Your task to perform on an android device: find which apps use the phone's location Image 0: 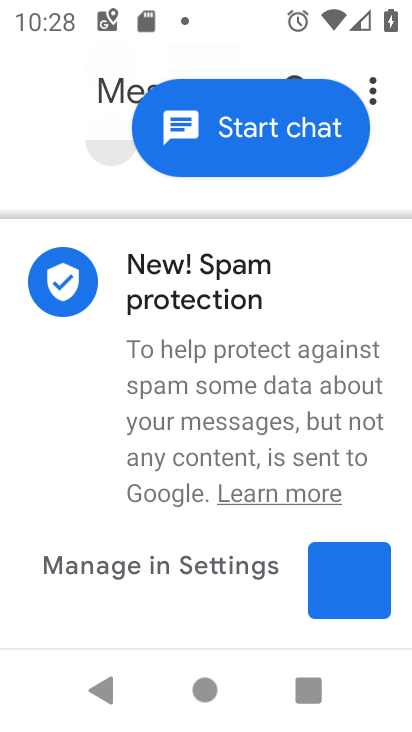
Step 0: press home button
Your task to perform on an android device: find which apps use the phone's location Image 1: 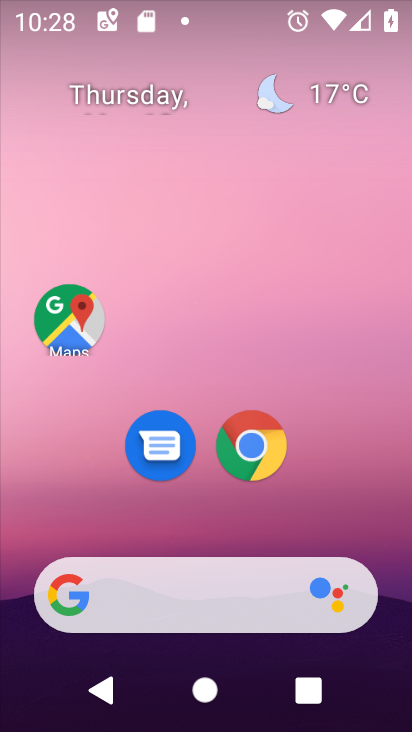
Step 1: drag from (232, 534) to (256, 107)
Your task to perform on an android device: find which apps use the phone's location Image 2: 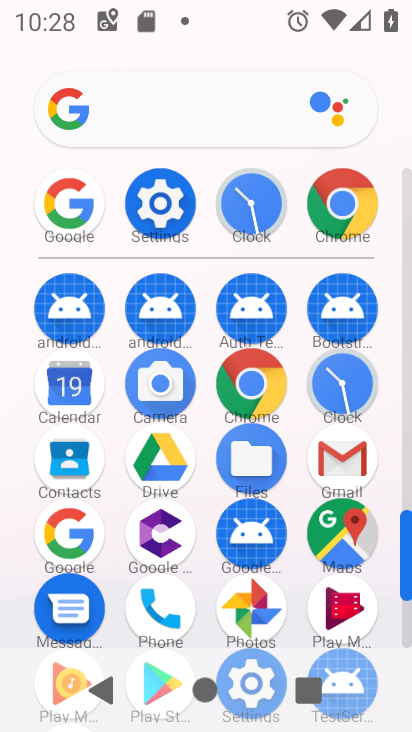
Step 2: click (164, 208)
Your task to perform on an android device: find which apps use the phone's location Image 3: 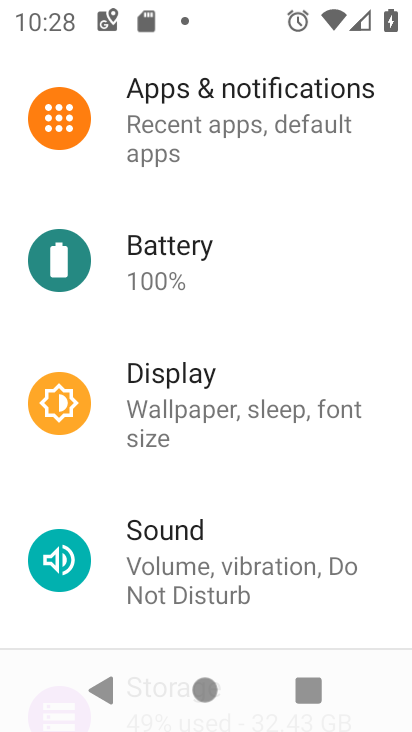
Step 3: drag from (232, 472) to (273, 206)
Your task to perform on an android device: find which apps use the phone's location Image 4: 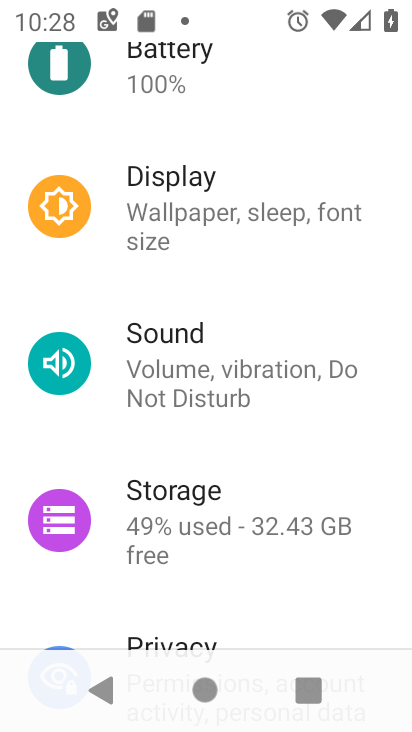
Step 4: drag from (248, 502) to (293, 176)
Your task to perform on an android device: find which apps use the phone's location Image 5: 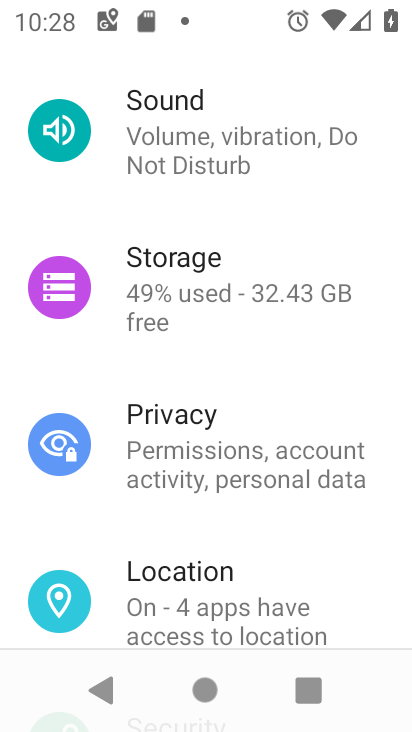
Step 5: click (236, 571)
Your task to perform on an android device: find which apps use the phone's location Image 6: 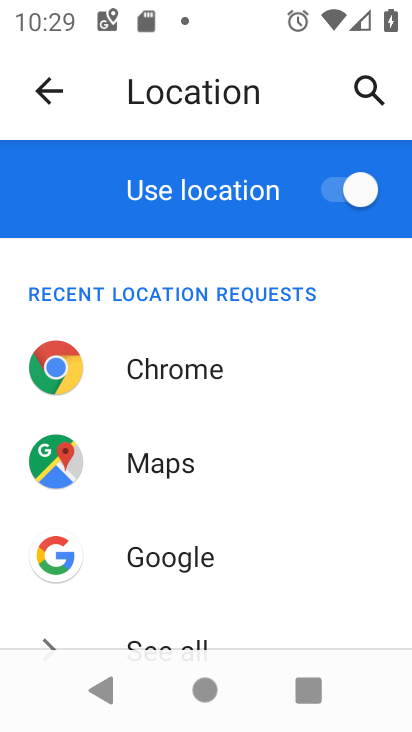
Step 6: drag from (285, 571) to (337, 291)
Your task to perform on an android device: find which apps use the phone's location Image 7: 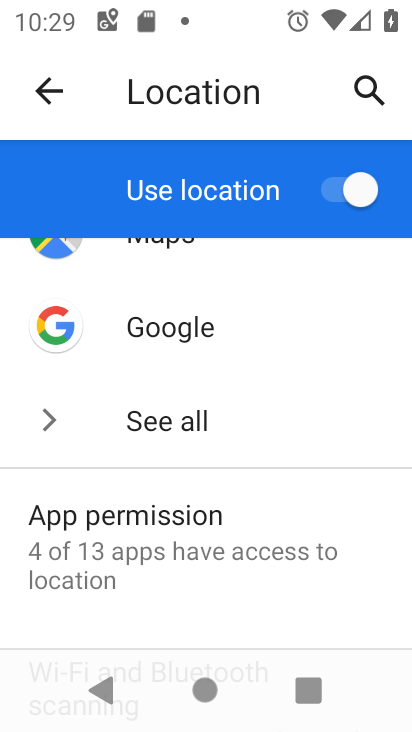
Step 7: drag from (223, 577) to (252, 347)
Your task to perform on an android device: find which apps use the phone's location Image 8: 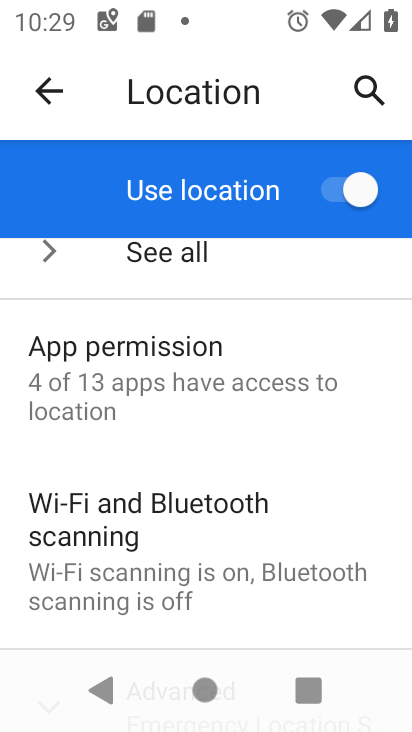
Step 8: drag from (228, 494) to (259, 271)
Your task to perform on an android device: find which apps use the phone's location Image 9: 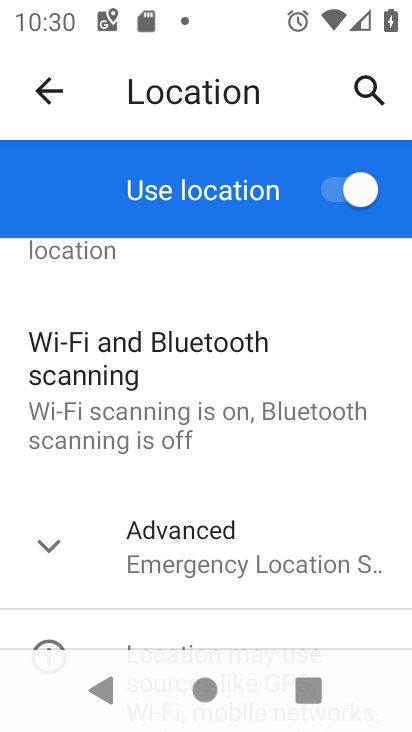
Step 9: drag from (226, 553) to (265, 310)
Your task to perform on an android device: find which apps use the phone's location Image 10: 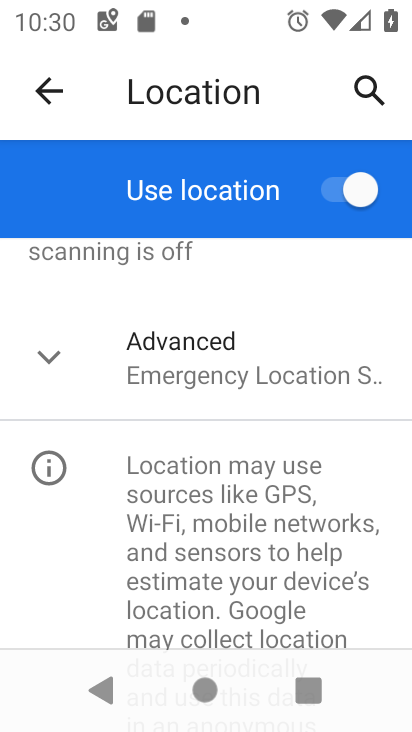
Step 10: drag from (269, 378) to (241, 704)
Your task to perform on an android device: find which apps use the phone's location Image 11: 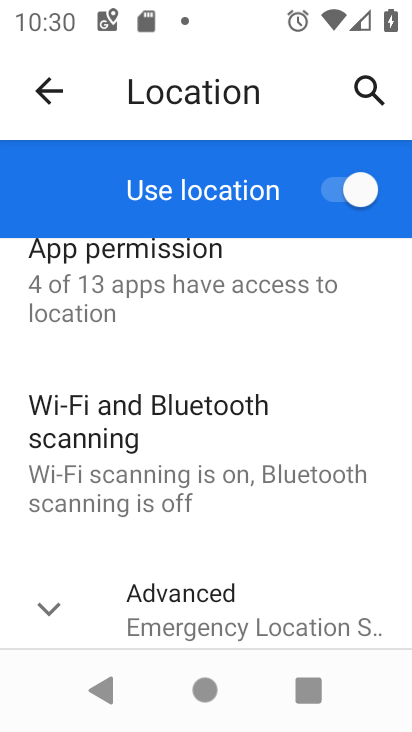
Step 11: drag from (278, 412) to (261, 495)
Your task to perform on an android device: find which apps use the phone's location Image 12: 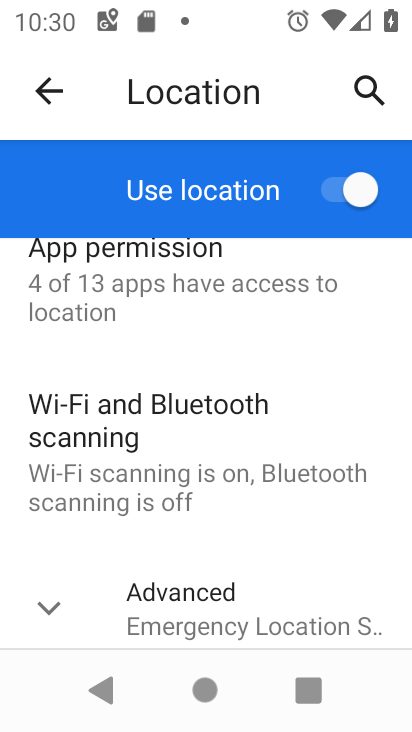
Step 12: click (235, 317)
Your task to perform on an android device: find which apps use the phone's location Image 13: 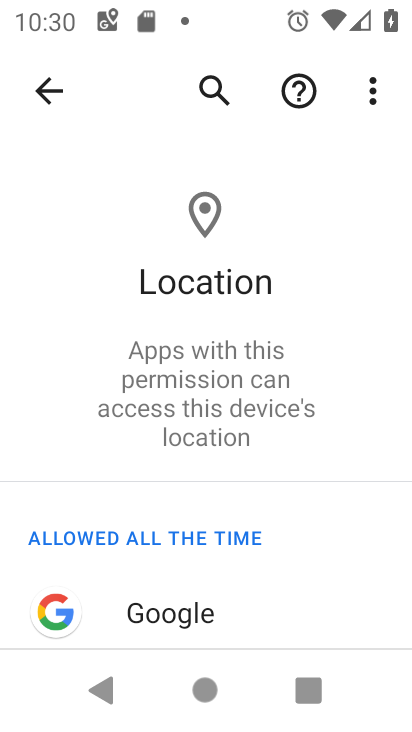
Step 13: task complete